Your task to perform on an android device: toggle javascript in the chrome app Image 0: 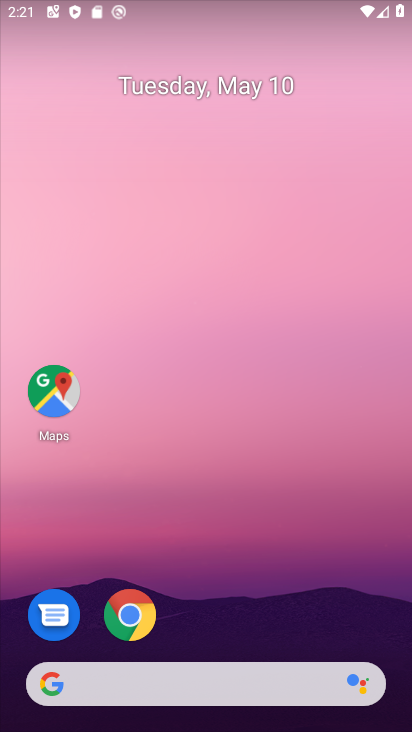
Step 0: click (129, 609)
Your task to perform on an android device: toggle javascript in the chrome app Image 1: 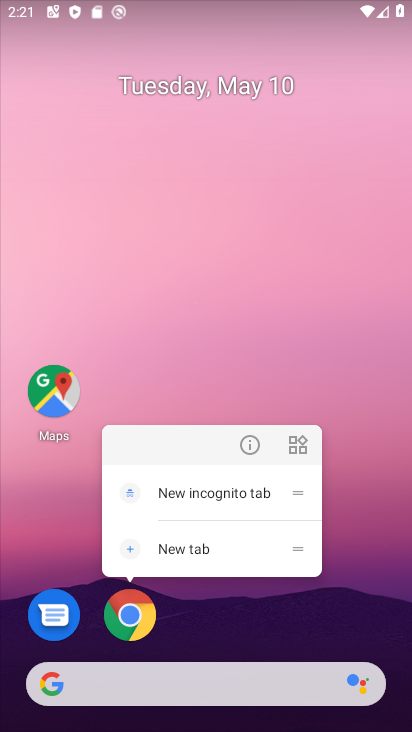
Step 1: click (136, 597)
Your task to perform on an android device: toggle javascript in the chrome app Image 2: 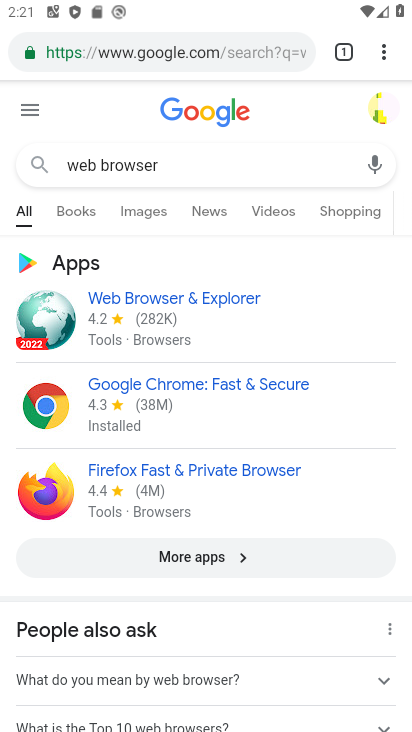
Step 2: drag from (384, 59) to (207, 580)
Your task to perform on an android device: toggle javascript in the chrome app Image 3: 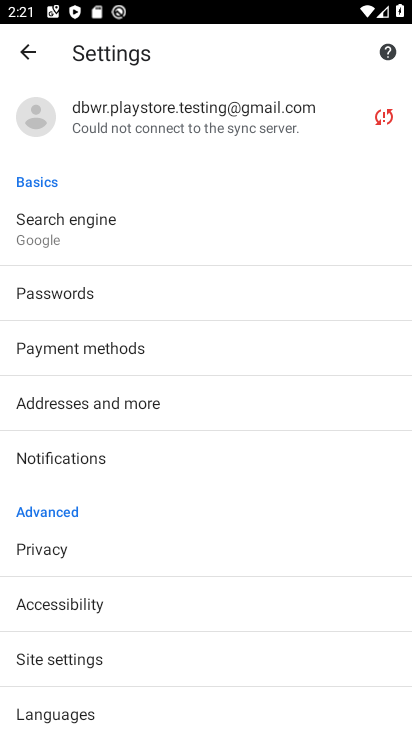
Step 3: drag from (216, 646) to (238, 248)
Your task to perform on an android device: toggle javascript in the chrome app Image 4: 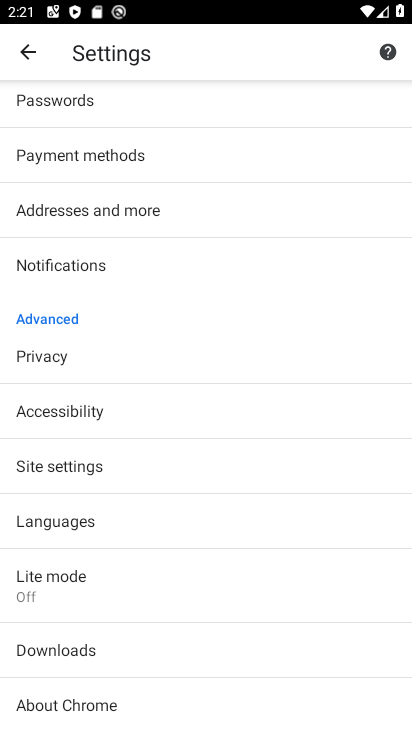
Step 4: click (71, 459)
Your task to perform on an android device: toggle javascript in the chrome app Image 5: 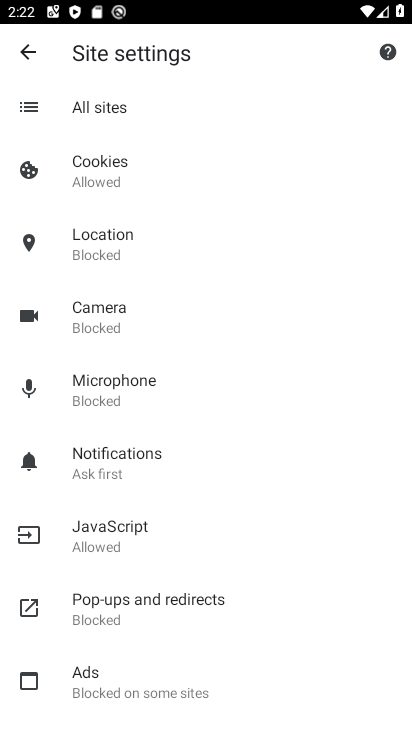
Step 5: click (112, 529)
Your task to perform on an android device: toggle javascript in the chrome app Image 6: 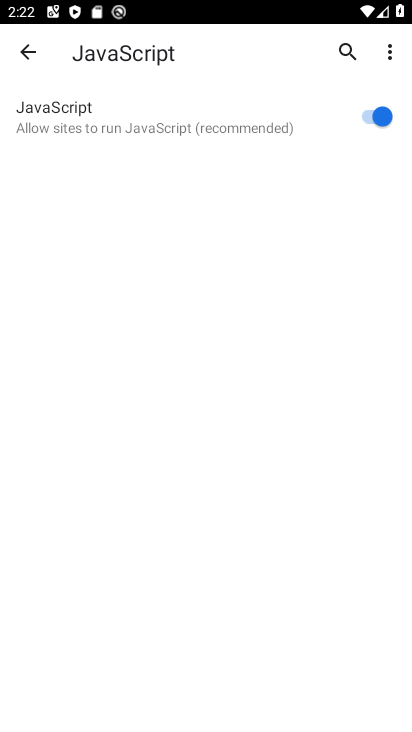
Step 6: task complete